Your task to perform on an android device: Search for usb-c on target.com, select the first entry, add it to the cart, then select checkout. Image 0: 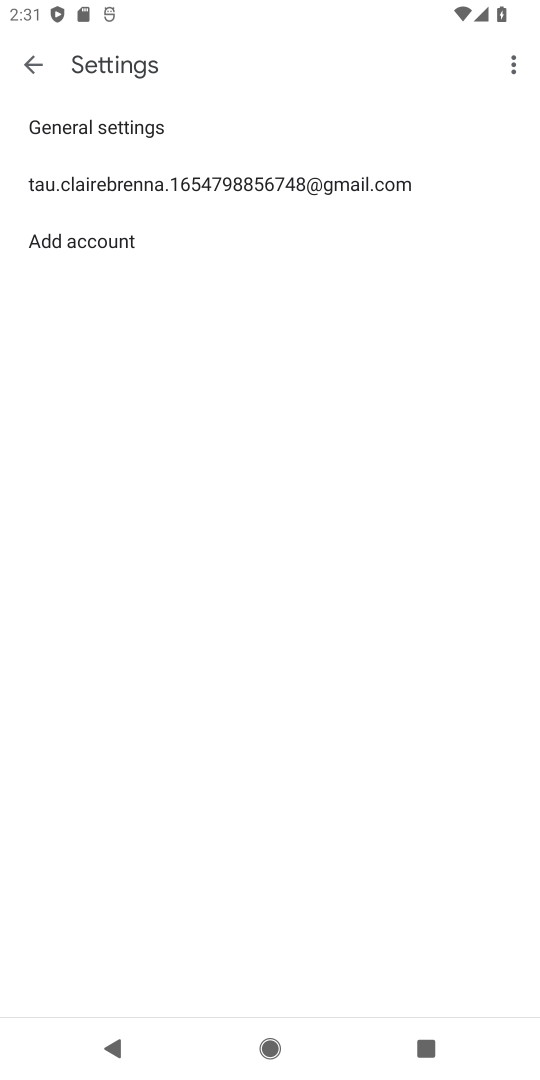
Step 0: press home button
Your task to perform on an android device: Search for usb-c on target.com, select the first entry, add it to the cart, then select checkout. Image 1: 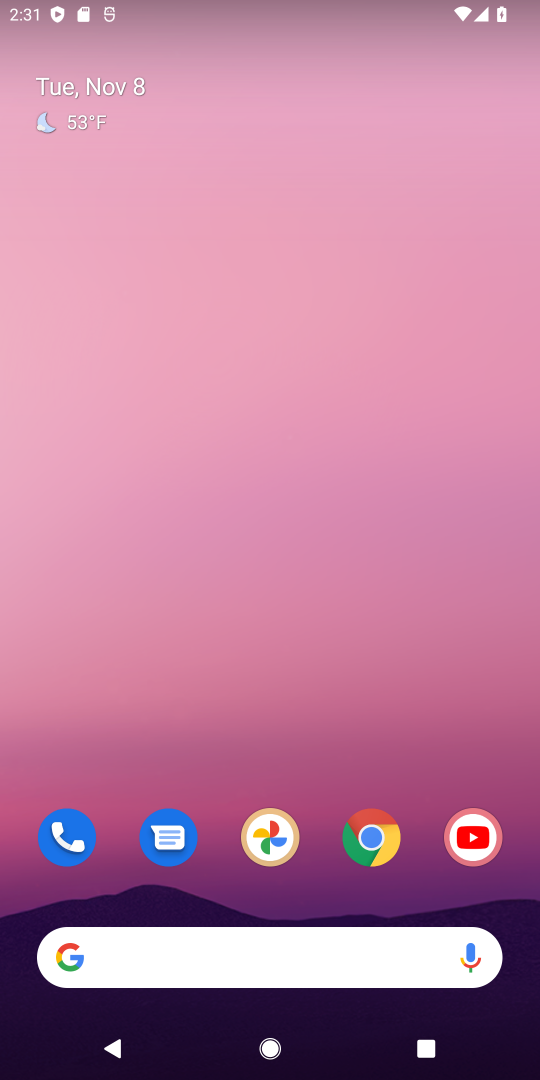
Step 1: click (381, 829)
Your task to perform on an android device: Search for usb-c on target.com, select the first entry, add it to the cart, then select checkout. Image 2: 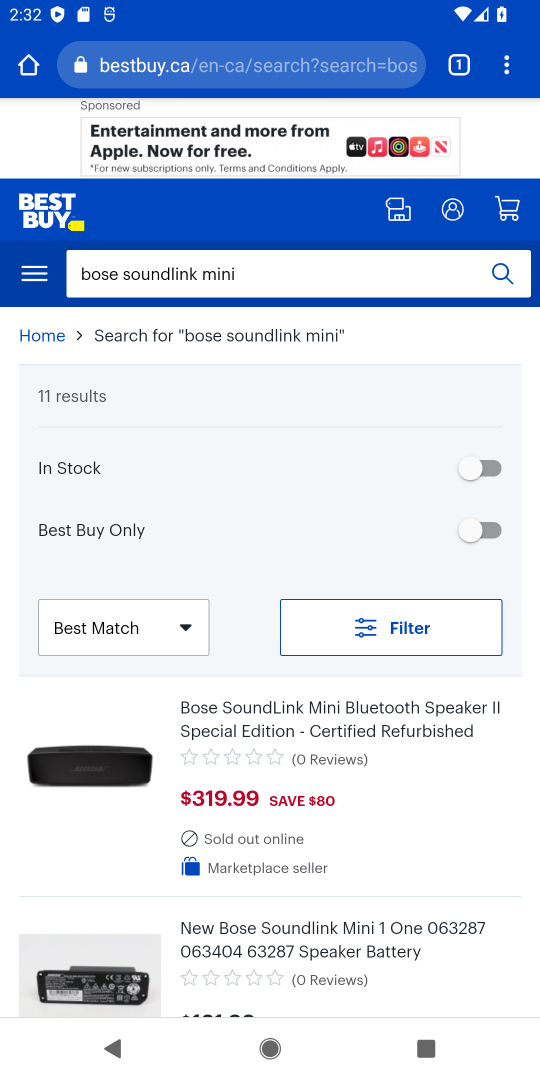
Step 2: click (179, 67)
Your task to perform on an android device: Search for usb-c on target.com, select the first entry, add it to the cart, then select checkout. Image 3: 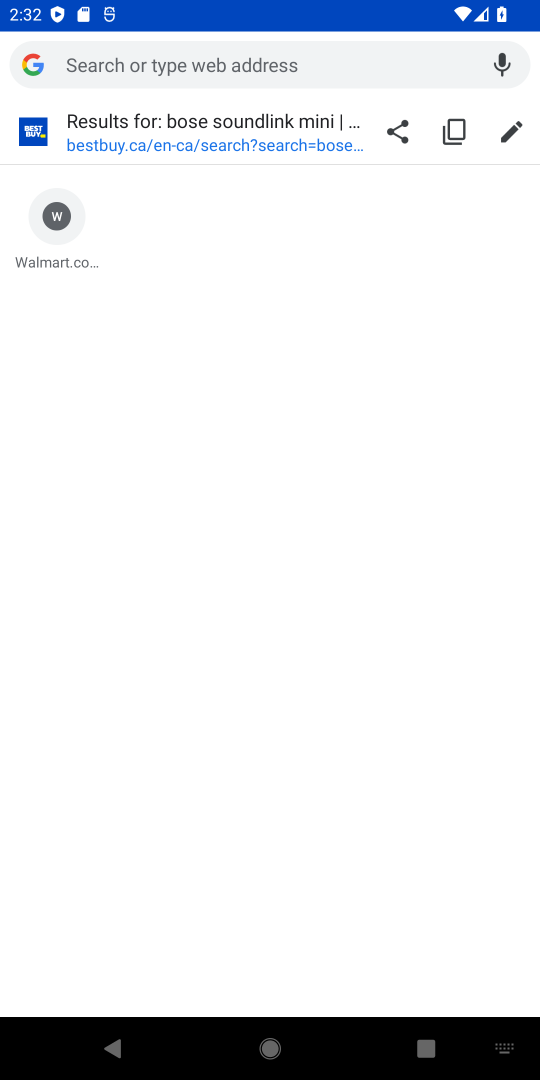
Step 3: type "target"
Your task to perform on an android device: Search for usb-c on target.com, select the first entry, add it to the cart, then select checkout. Image 4: 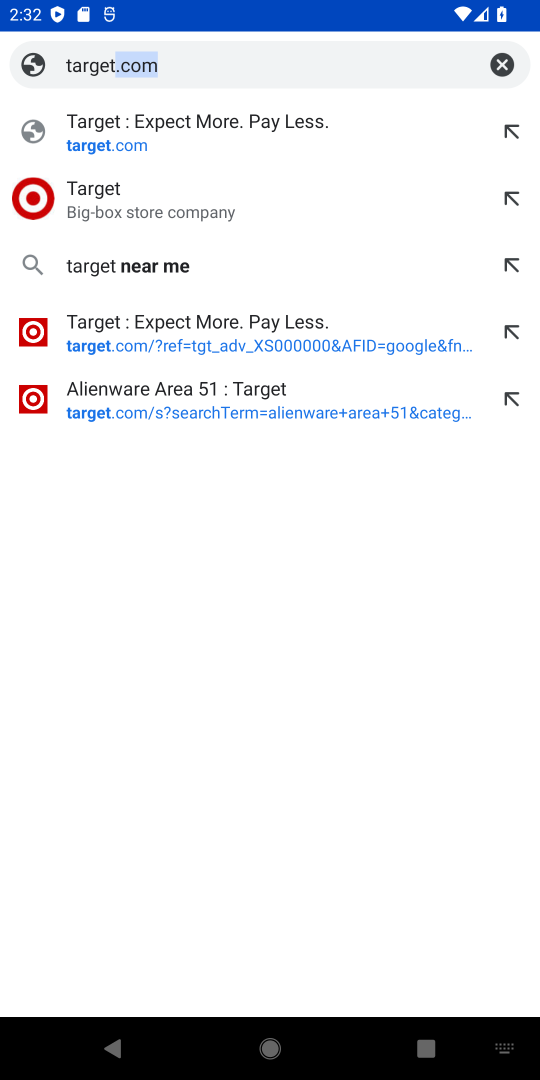
Step 4: click (78, 207)
Your task to perform on an android device: Search for usb-c on target.com, select the first entry, add it to the cart, then select checkout. Image 5: 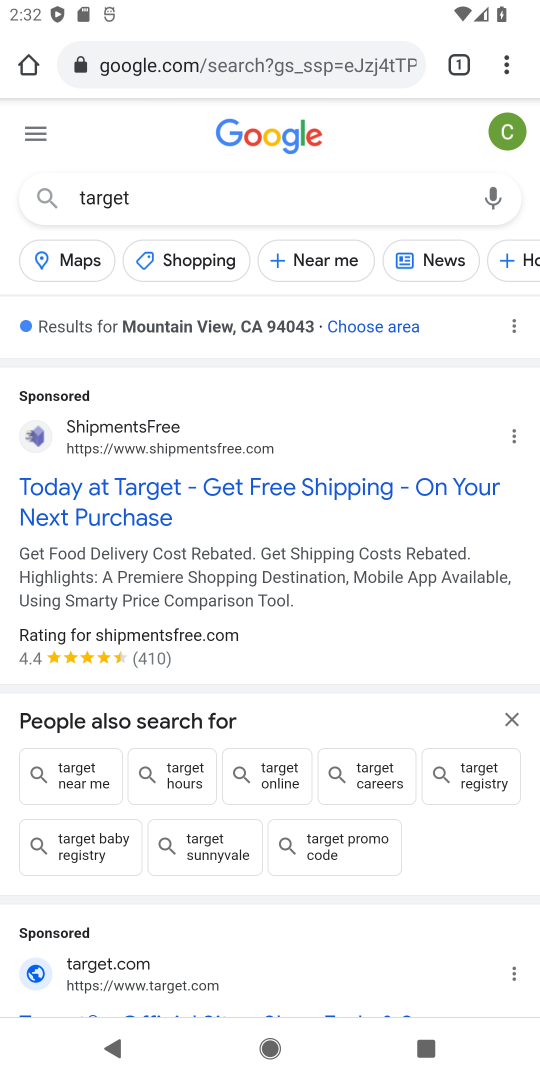
Step 5: drag from (202, 610) to (228, 189)
Your task to perform on an android device: Search for usb-c on target.com, select the first entry, add it to the cart, then select checkout. Image 6: 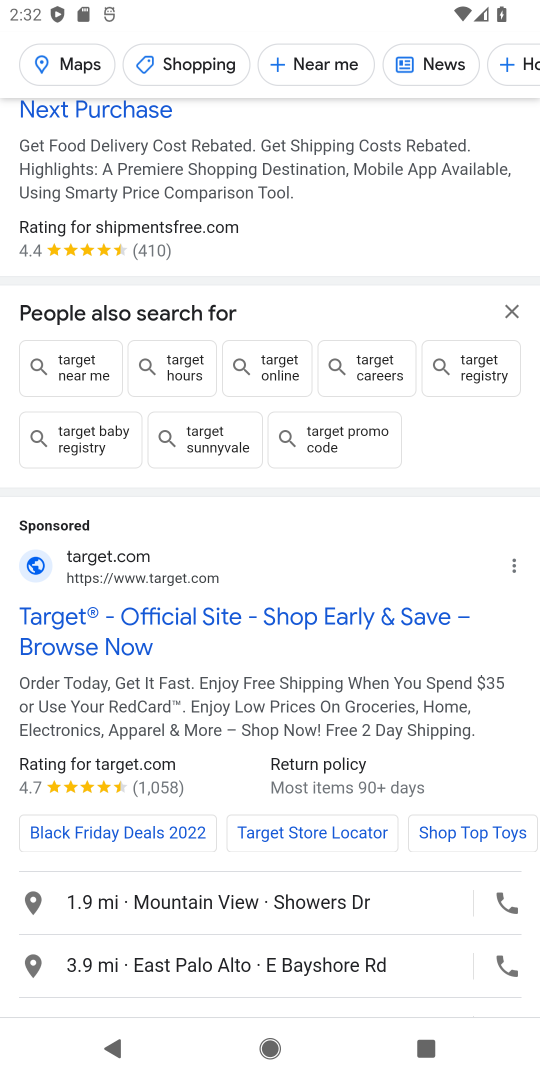
Step 6: click (148, 609)
Your task to perform on an android device: Search for usb-c on target.com, select the first entry, add it to the cart, then select checkout. Image 7: 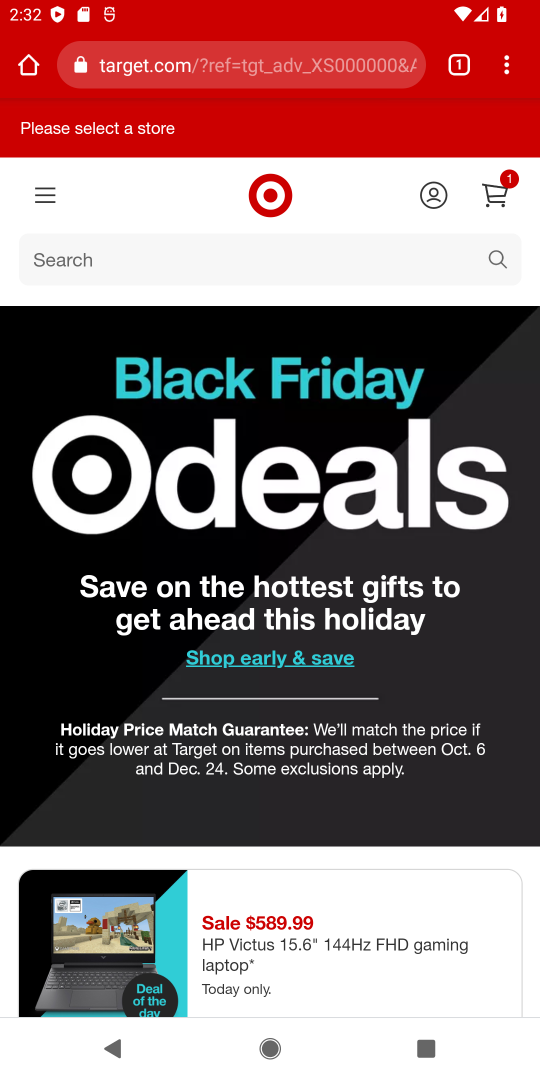
Step 7: click (91, 262)
Your task to perform on an android device: Search for usb-c on target.com, select the first entry, add it to the cart, then select checkout. Image 8: 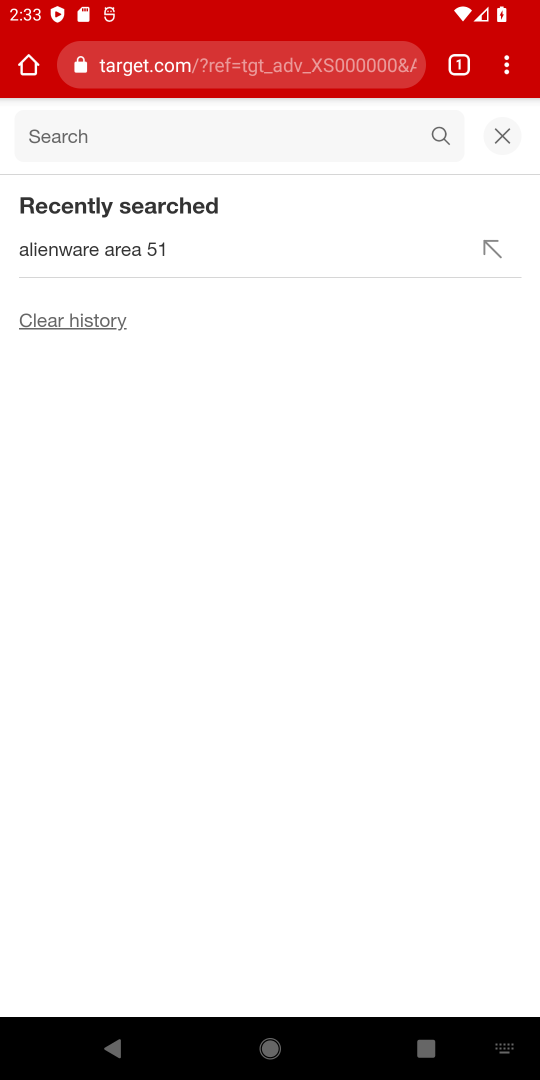
Step 8: type "usb - c "
Your task to perform on an android device: Search for usb-c on target.com, select the first entry, add it to the cart, then select checkout. Image 9: 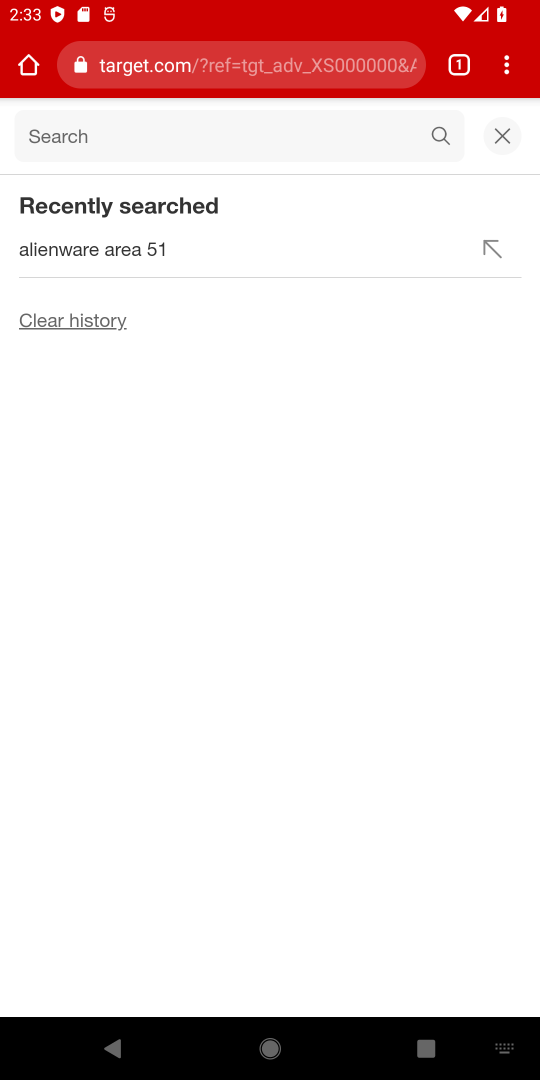
Step 9: type ""
Your task to perform on an android device: Search for usb-c on target.com, select the first entry, add it to the cart, then select checkout. Image 10: 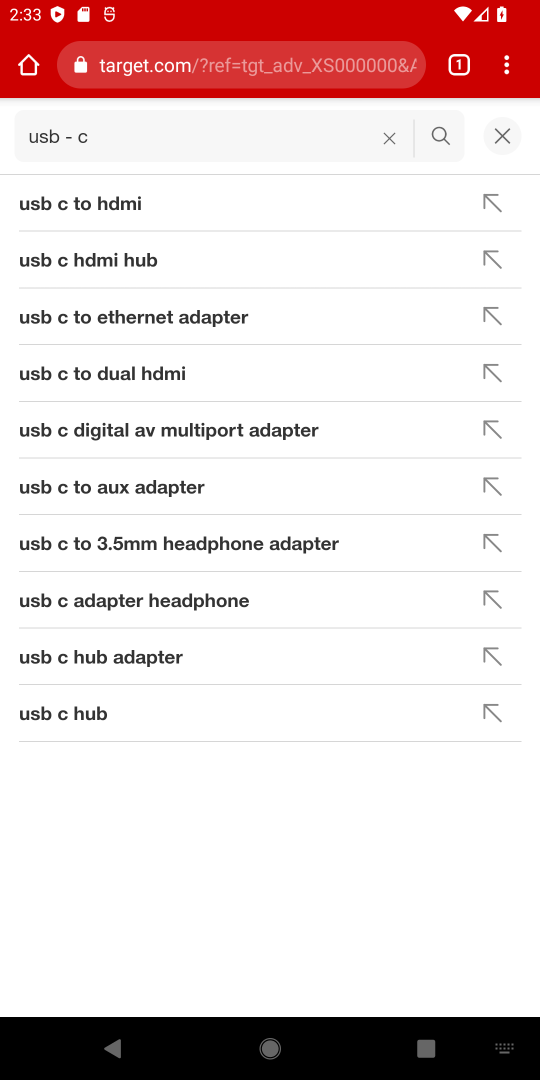
Step 10: click (75, 258)
Your task to perform on an android device: Search for usb-c on target.com, select the first entry, add it to the cart, then select checkout. Image 11: 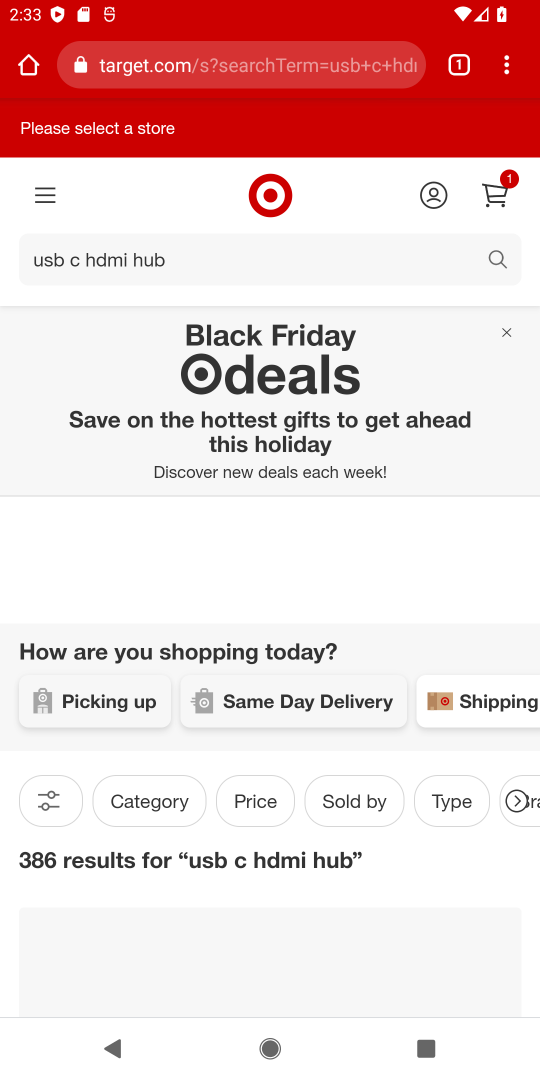
Step 11: drag from (164, 867) to (201, 349)
Your task to perform on an android device: Search for usb-c on target.com, select the first entry, add it to the cart, then select checkout. Image 12: 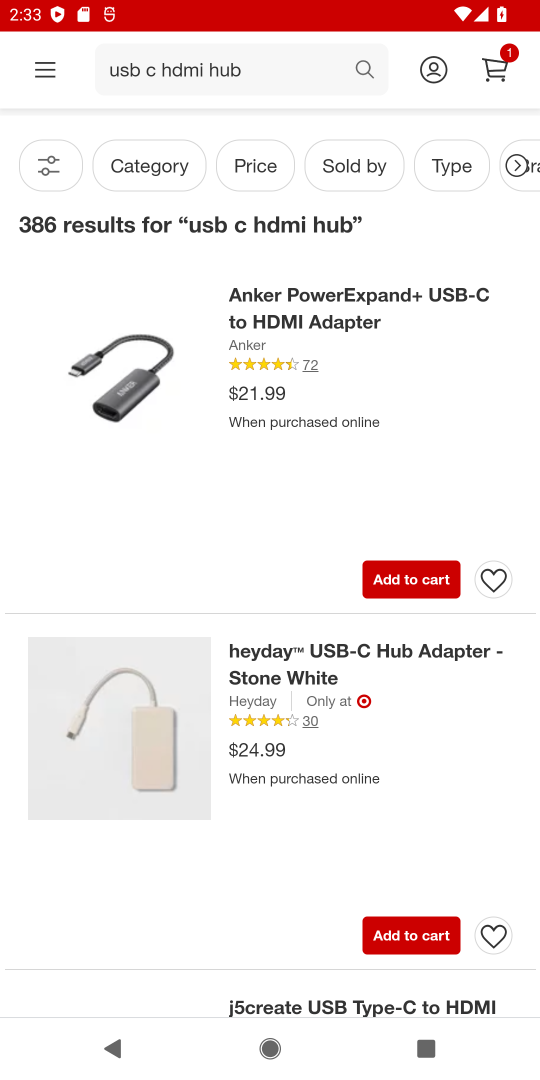
Step 12: click (290, 293)
Your task to perform on an android device: Search for usb-c on target.com, select the first entry, add it to the cart, then select checkout. Image 13: 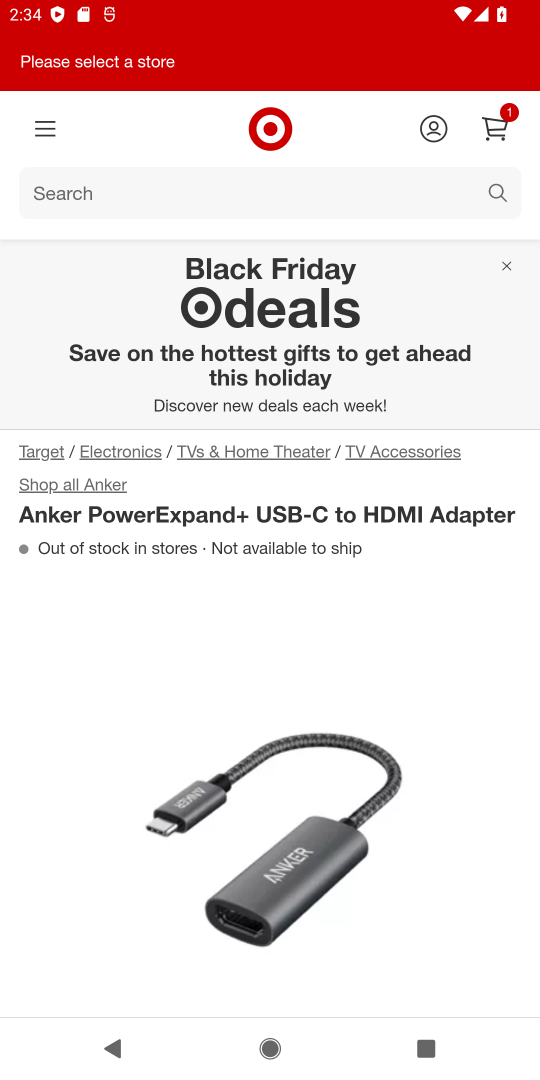
Step 13: drag from (230, 712) to (232, 348)
Your task to perform on an android device: Search for usb-c on target.com, select the first entry, add it to the cart, then select checkout. Image 14: 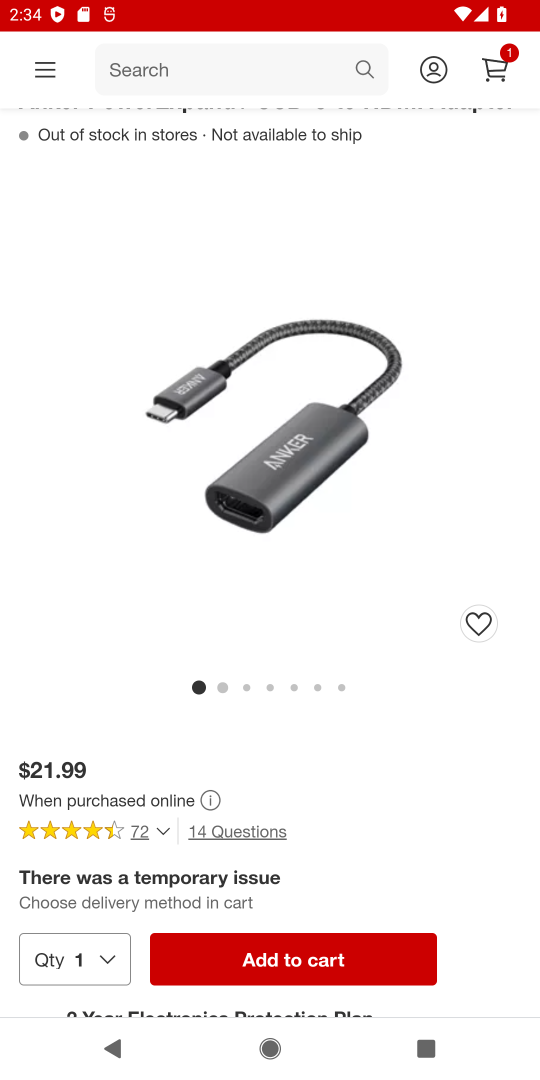
Step 14: click (297, 961)
Your task to perform on an android device: Search for usb-c on target.com, select the first entry, add it to the cart, then select checkout. Image 15: 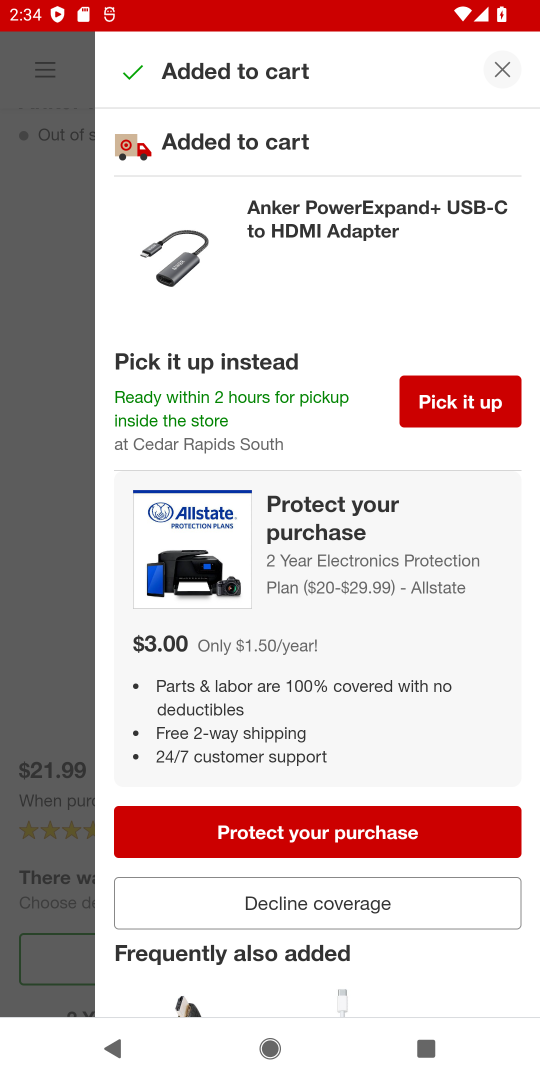
Step 15: click (315, 845)
Your task to perform on an android device: Search for usb-c on target.com, select the first entry, add it to the cart, then select checkout. Image 16: 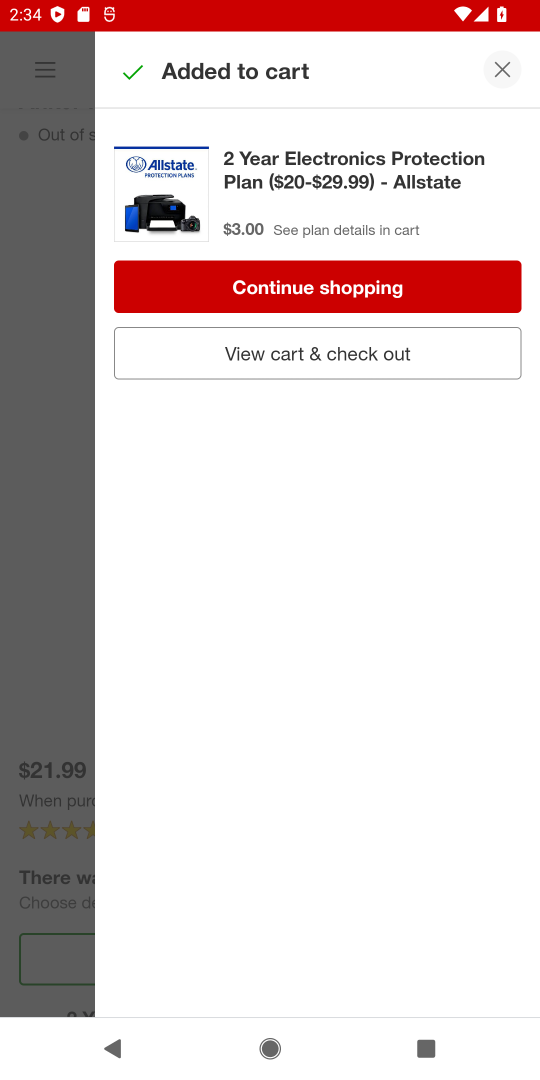
Step 16: click (259, 357)
Your task to perform on an android device: Search for usb-c on target.com, select the first entry, add it to the cart, then select checkout. Image 17: 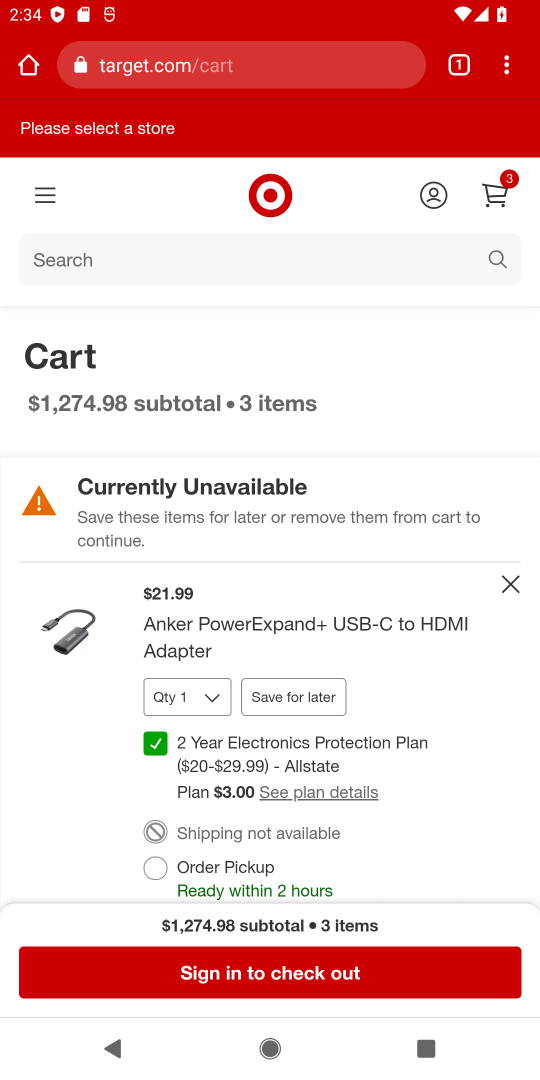
Step 17: drag from (266, 841) to (297, 423)
Your task to perform on an android device: Search for usb-c on target.com, select the first entry, add it to the cart, then select checkout. Image 18: 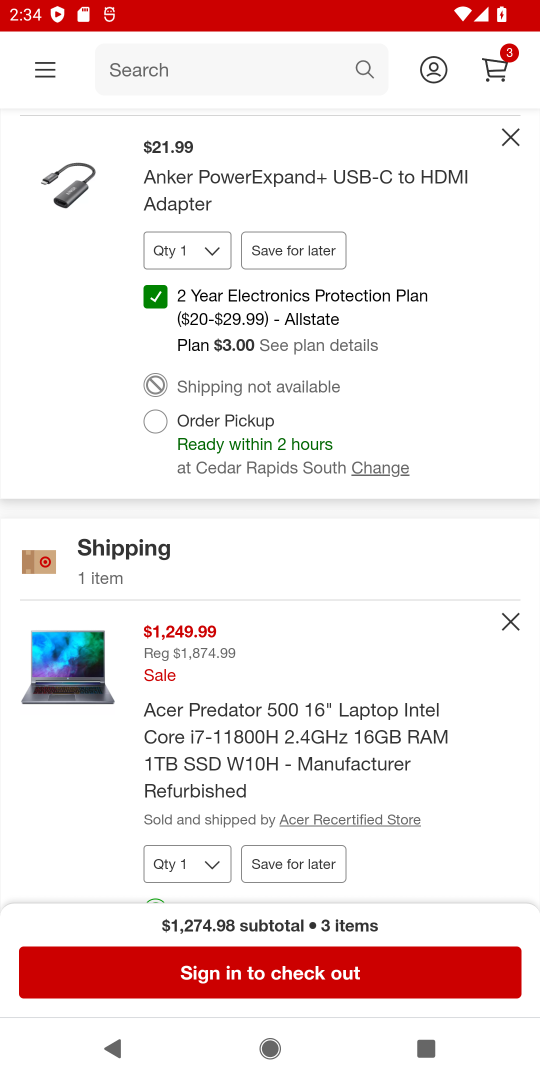
Step 18: click (259, 978)
Your task to perform on an android device: Search for usb-c on target.com, select the first entry, add it to the cart, then select checkout. Image 19: 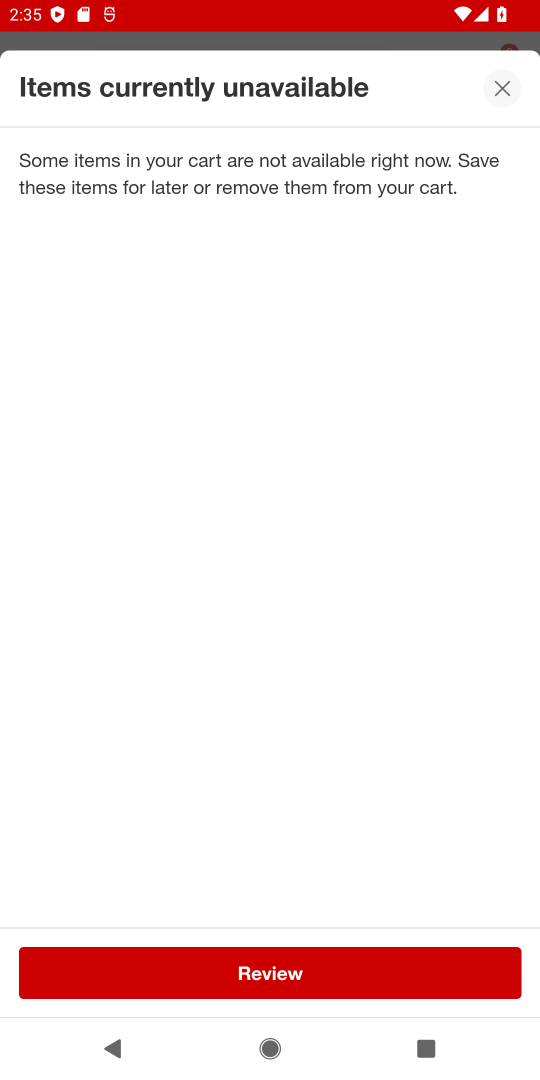
Step 19: task complete